Your task to perform on an android device: stop showing notifications on the lock screen Image 0: 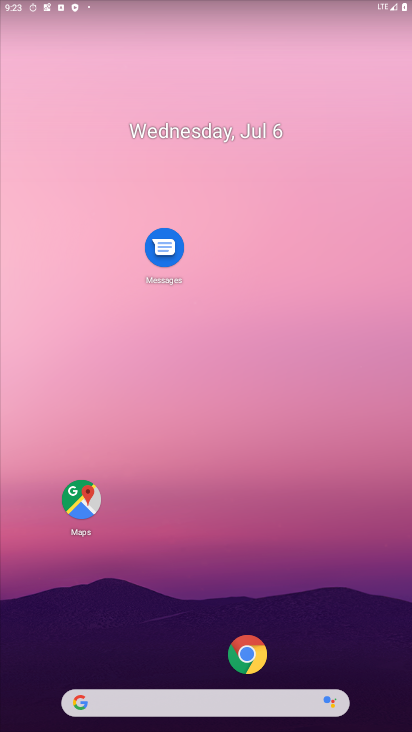
Step 0: drag from (201, 11) to (205, 370)
Your task to perform on an android device: stop showing notifications on the lock screen Image 1: 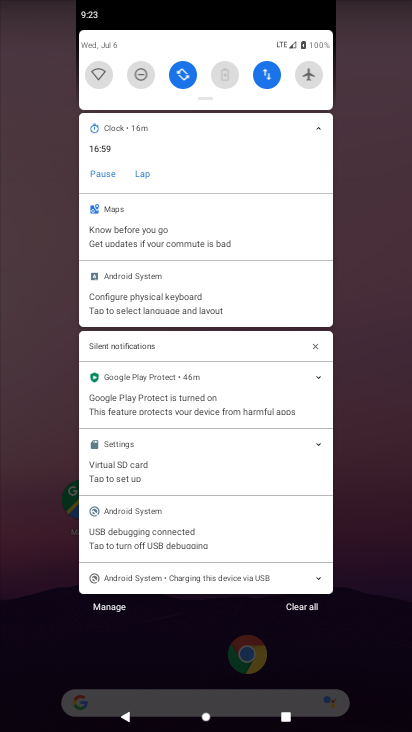
Step 1: drag from (202, 36) to (228, 557)
Your task to perform on an android device: stop showing notifications on the lock screen Image 2: 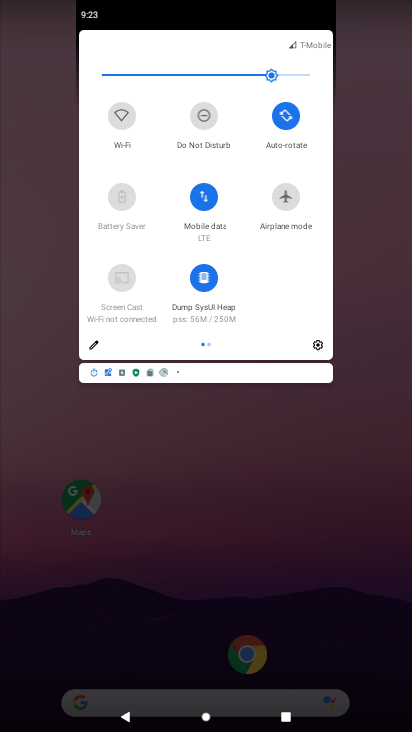
Step 2: click (314, 342)
Your task to perform on an android device: stop showing notifications on the lock screen Image 3: 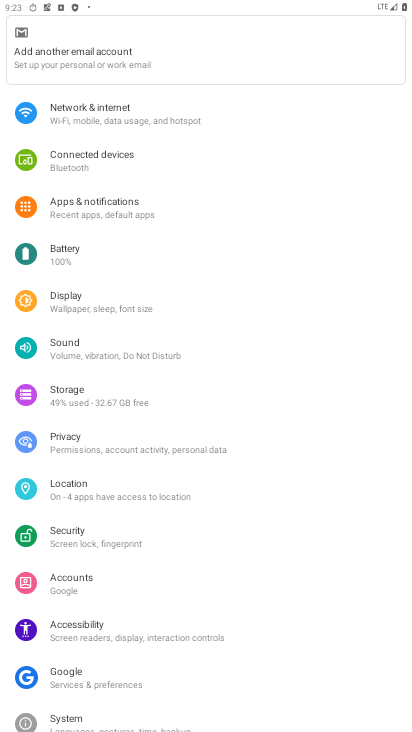
Step 3: click (87, 200)
Your task to perform on an android device: stop showing notifications on the lock screen Image 4: 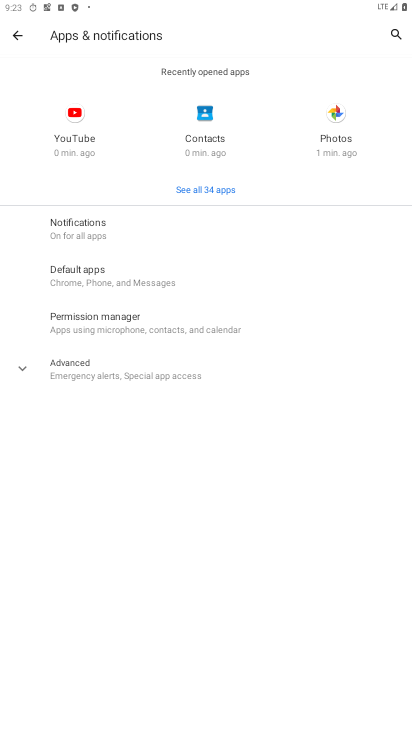
Step 4: click (136, 233)
Your task to perform on an android device: stop showing notifications on the lock screen Image 5: 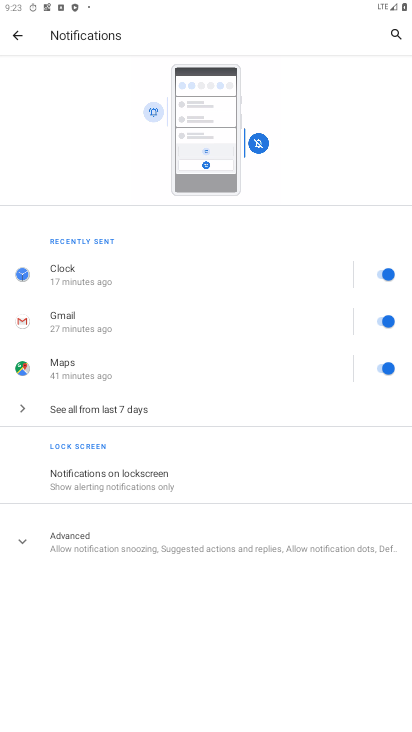
Step 5: click (189, 473)
Your task to perform on an android device: stop showing notifications on the lock screen Image 6: 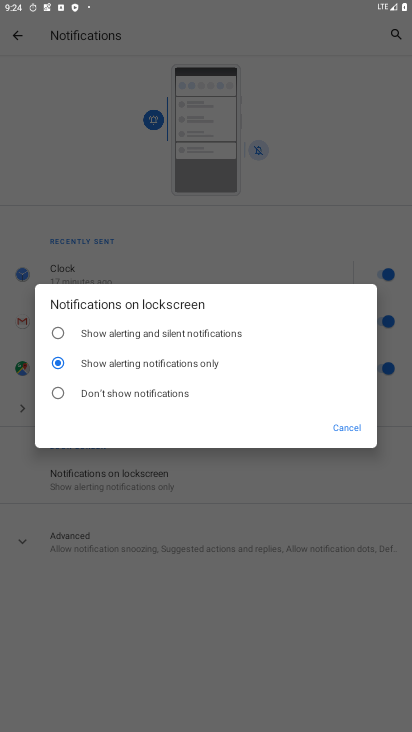
Step 6: click (153, 393)
Your task to perform on an android device: stop showing notifications on the lock screen Image 7: 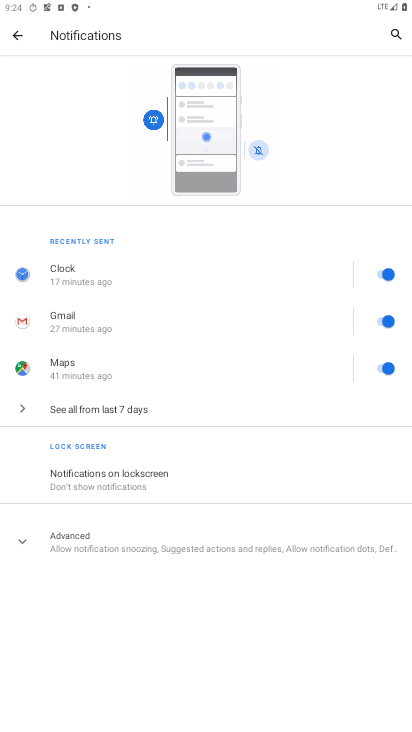
Step 7: task complete